Your task to perform on an android device: Search for Italian restaurants on Maps Image 0: 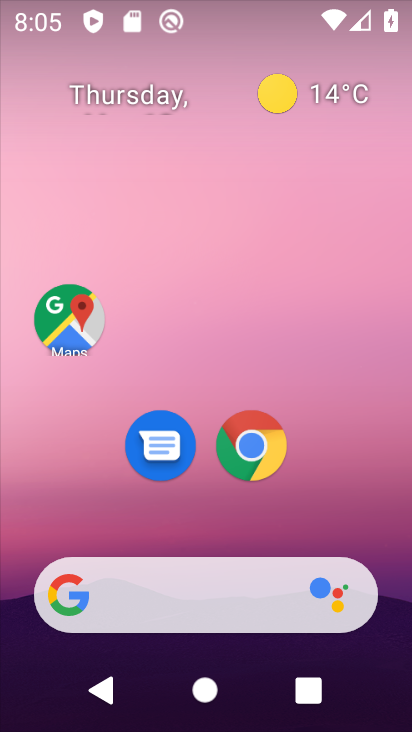
Step 0: drag from (230, 715) to (230, 163)
Your task to perform on an android device: Search for Italian restaurants on Maps Image 1: 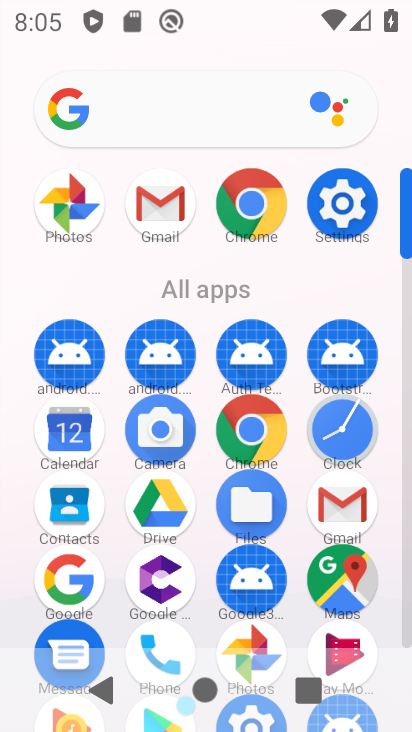
Step 1: click (348, 584)
Your task to perform on an android device: Search for Italian restaurants on Maps Image 2: 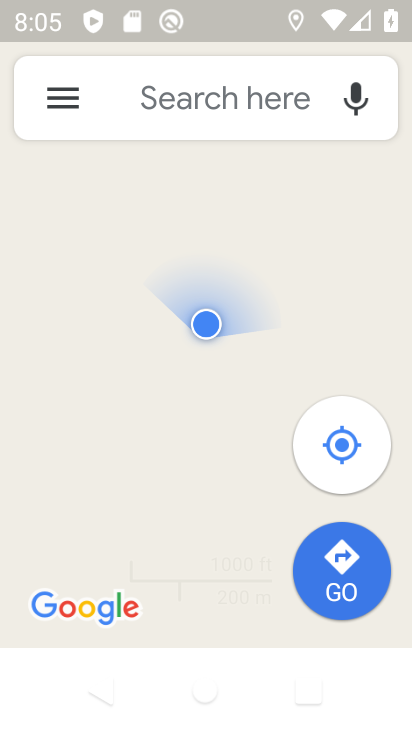
Step 2: click (244, 105)
Your task to perform on an android device: Search for Italian restaurants on Maps Image 3: 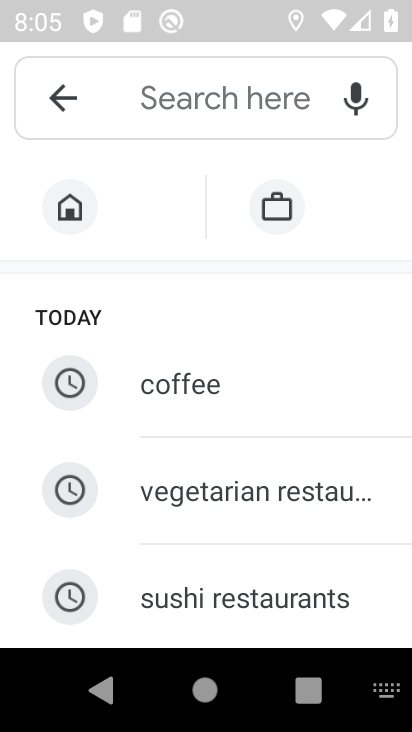
Step 3: type "italian restaurants"
Your task to perform on an android device: Search for Italian restaurants on Maps Image 4: 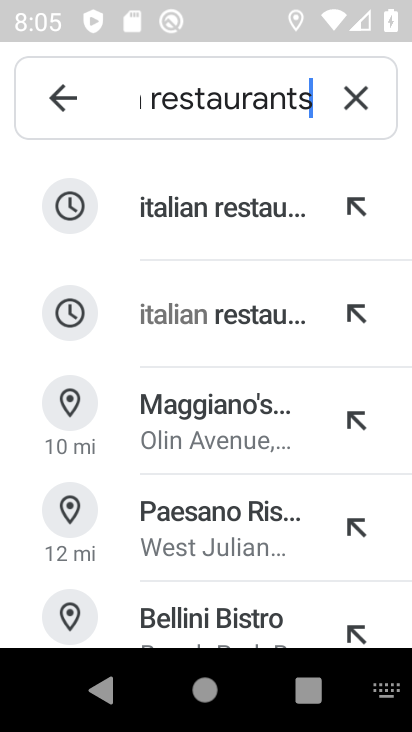
Step 4: click (187, 206)
Your task to perform on an android device: Search for Italian restaurants on Maps Image 5: 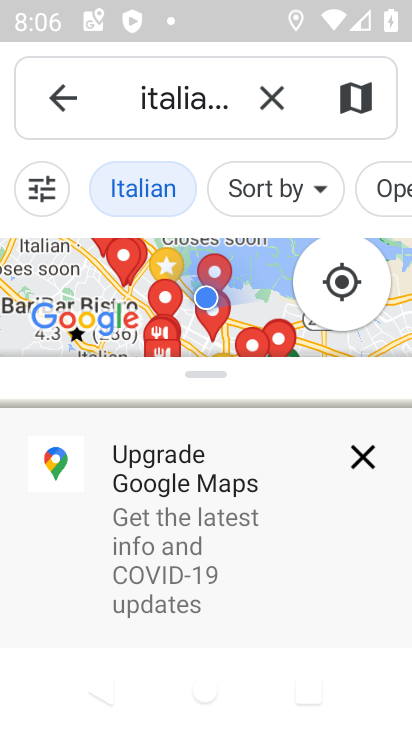
Step 5: task complete